Your task to perform on an android device: What's on my calendar today? Image 0: 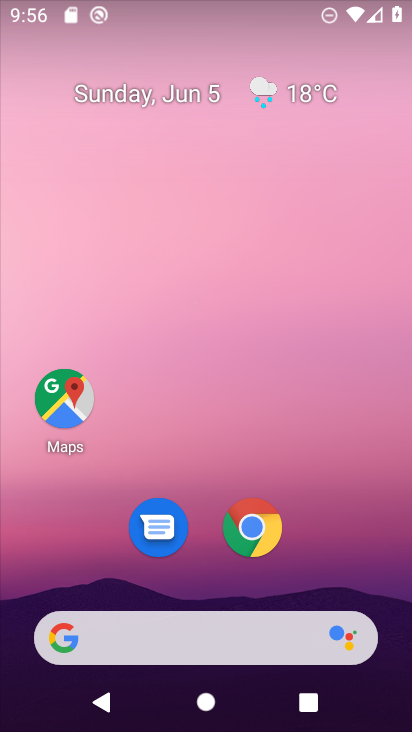
Step 0: drag from (193, 465) to (292, 0)
Your task to perform on an android device: What's on my calendar today? Image 1: 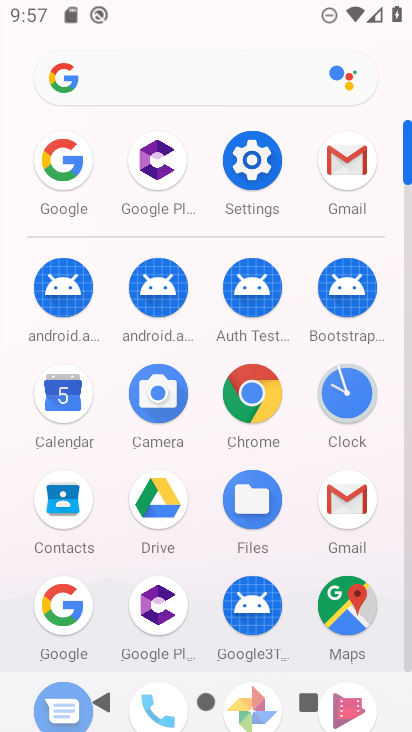
Step 1: click (62, 407)
Your task to perform on an android device: What's on my calendar today? Image 2: 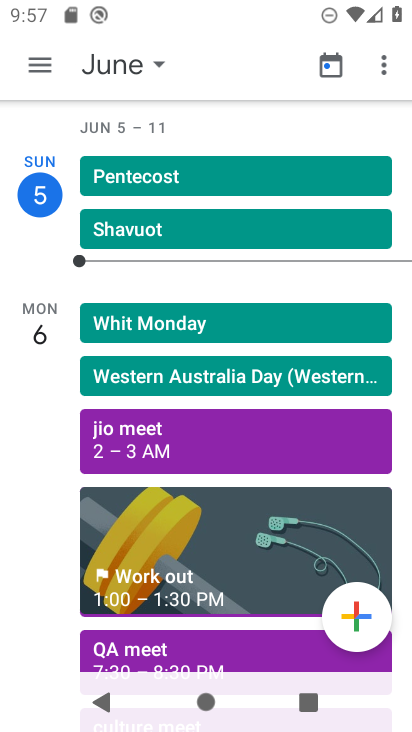
Step 2: click (162, 377)
Your task to perform on an android device: What's on my calendar today? Image 3: 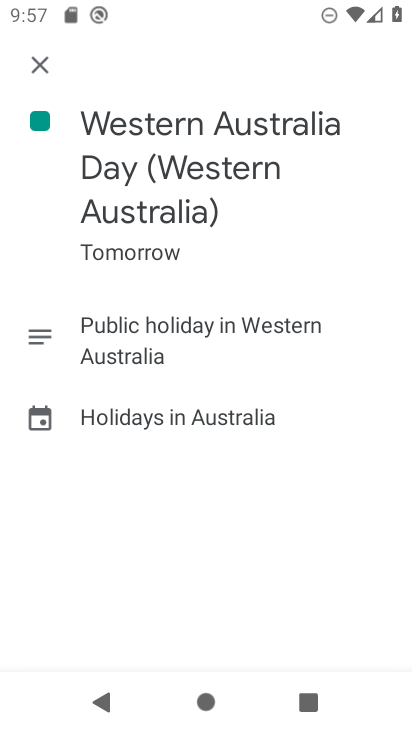
Step 3: task complete